Your task to perform on an android device: Open eBay Image 0: 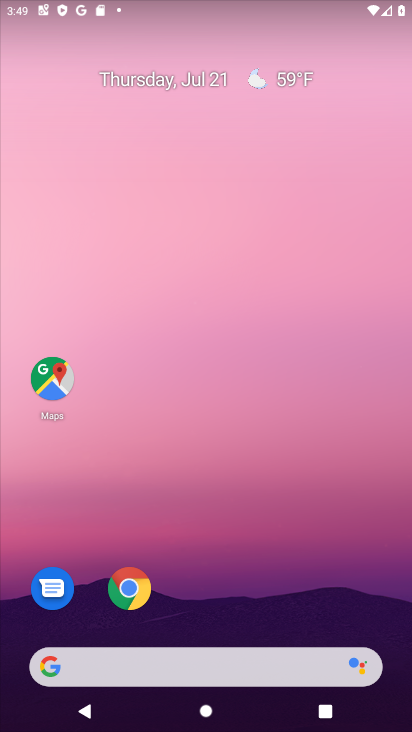
Step 0: click (125, 585)
Your task to perform on an android device: Open eBay Image 1: 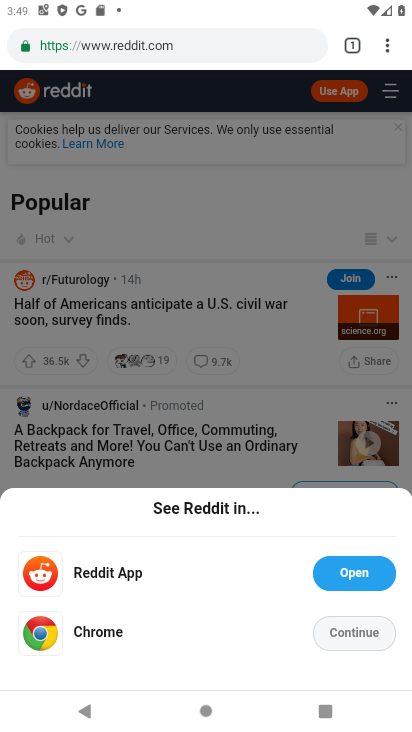
Step 1: click (386, 44)
Your task to perform on an android device: Open eBay Image 2: 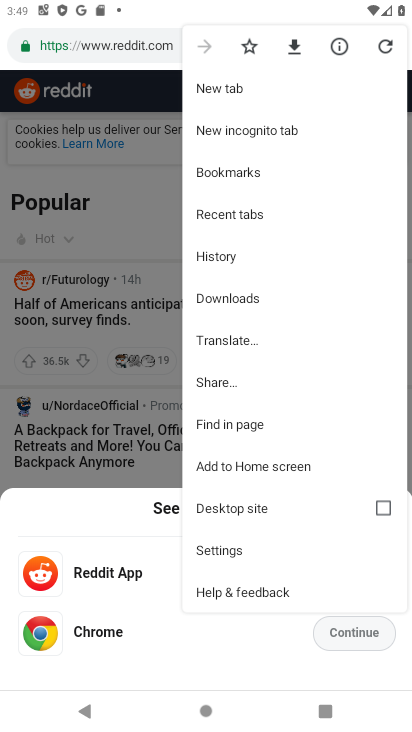
Step 2: click (213, 88)
Your task to perform on an android device: Open eBay Image 3: 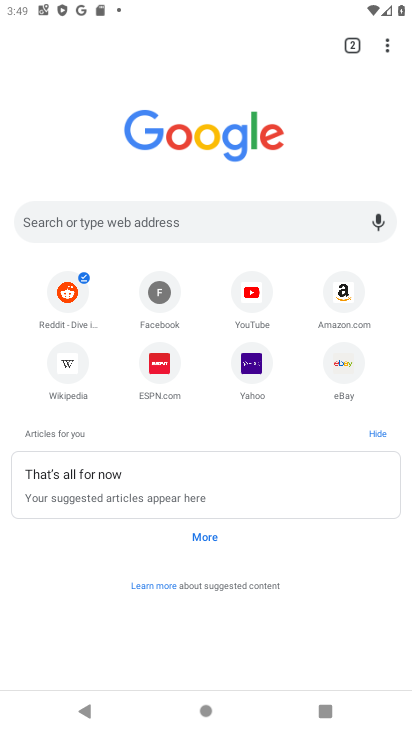
Step 3: click (344, 355)
Your task to perform on an android device: Open eBay Image 4: 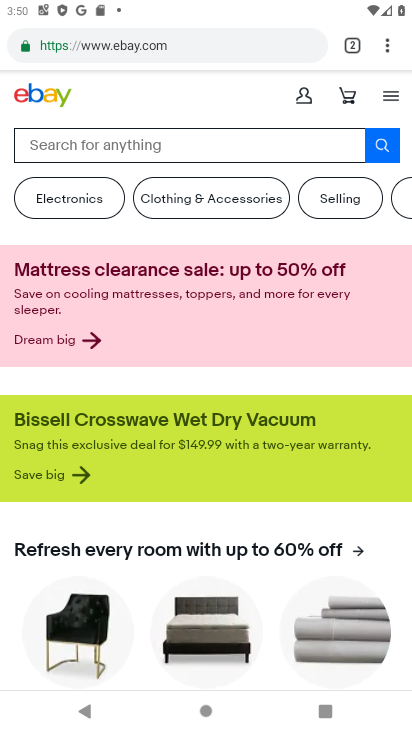
Step 4: task complete